Your task to perform on an android device: Search for Italian restaurants on Maps Image 0: 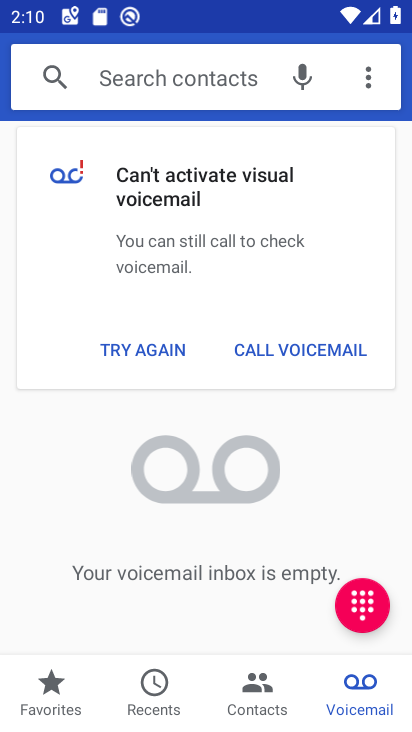
Step 0: press home button
Your task to perform on an android device: Search for Italian restaurants on Maps Image 1: 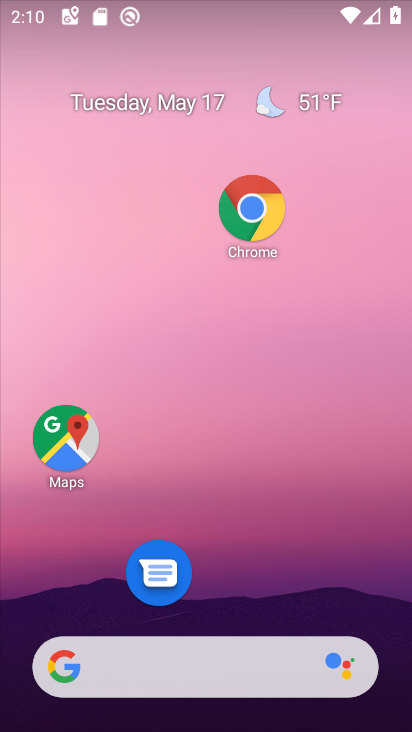
Step 1: drag from (230, 611) to (208, 64)
Your task to perform on an android device: Search for Italian restaurants on Maps Image 2: 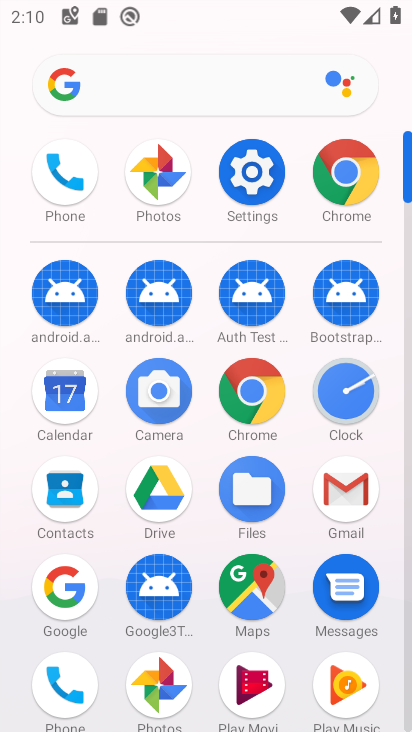
Step 2: click (253, 582)
Your task to perform on an android device: Search for Italian restaurants on Maps Image 3: 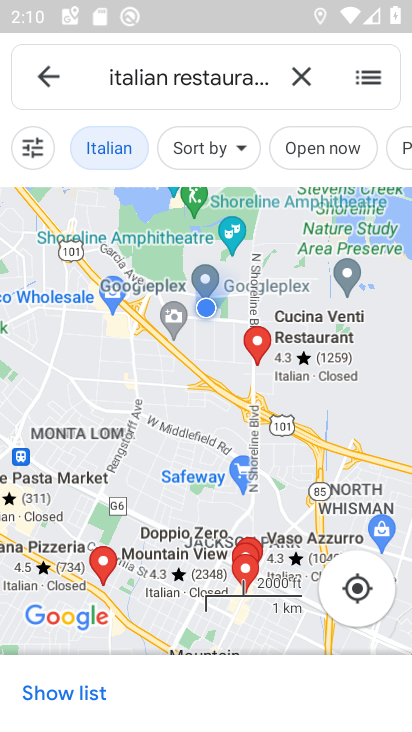
Step 3: task complete